Your task to perform on an android device: Go to privacy settings Image 0: 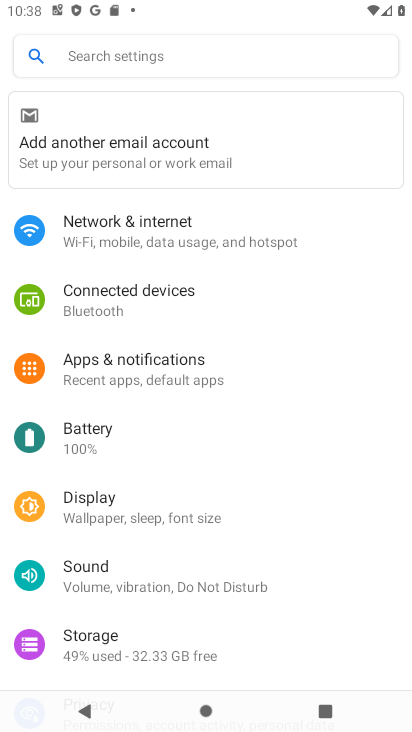
Step 0: press home button
Your task to perform on an android device: Go to privacy settings Image 1: 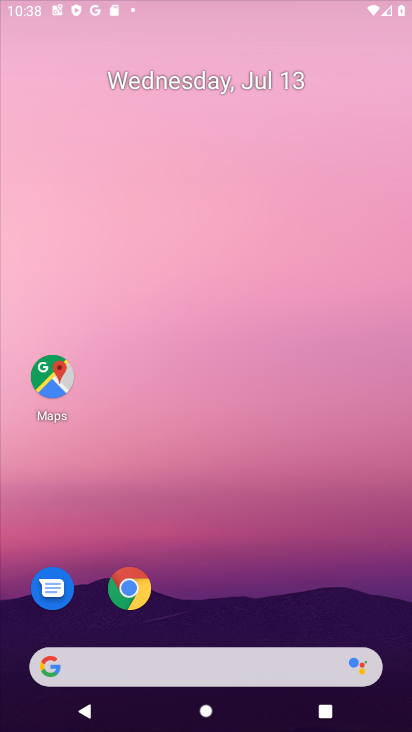
Step 1: drag from (241, 614) to (255, 108)
Your task to perform on an android device: Go to privacy settings Image 2: 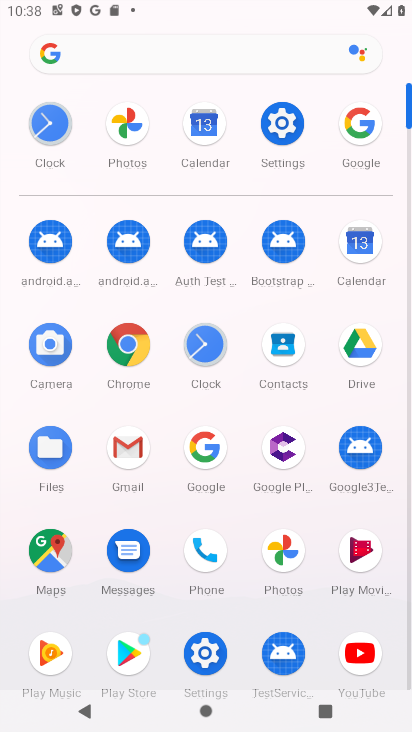
Step 2: click (126, 348)
Your task to perform on an android device: Go to privacy settings Image 3: 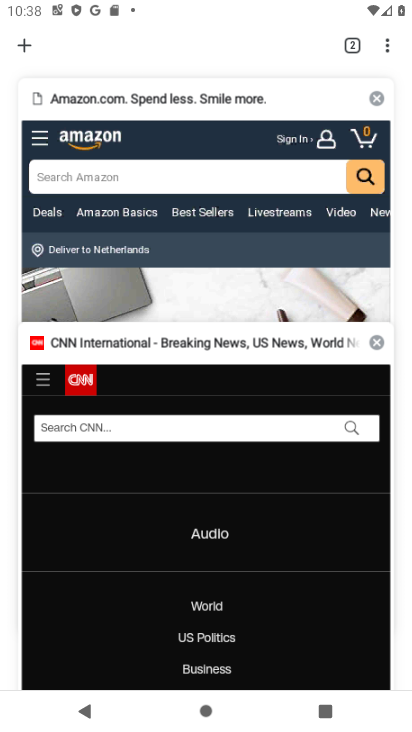
Step 3: press back button
Your task to perform on an android device: Go to privacy settings Image 4: 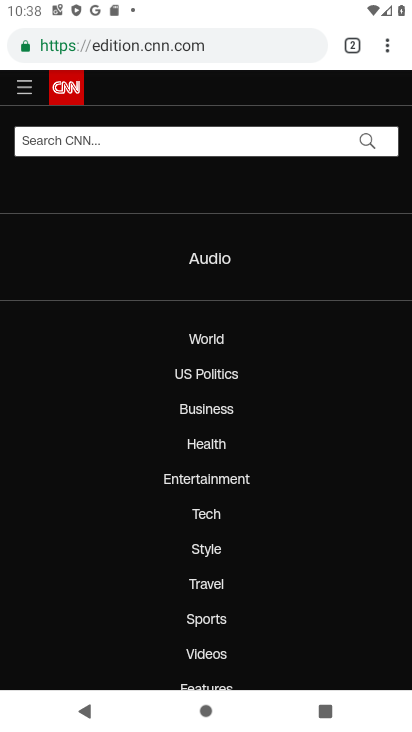
Step 4: click (381, 46)
Your task to perform on an android device: Go to privacy settings Image 5: 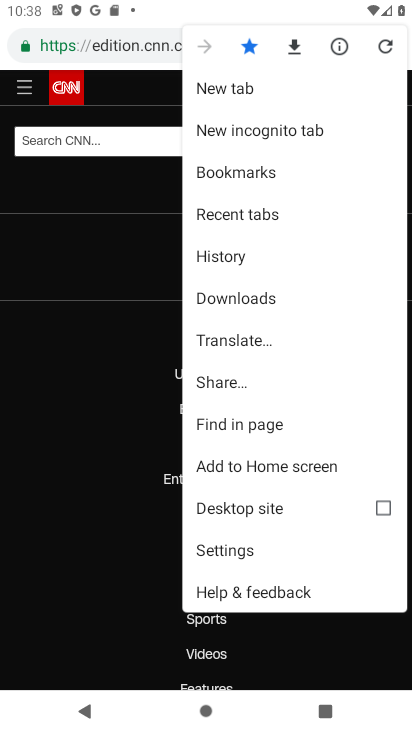
Step 5: click (250, 548)
Your task to perform on an android device: Go to privacy settings Image 6: 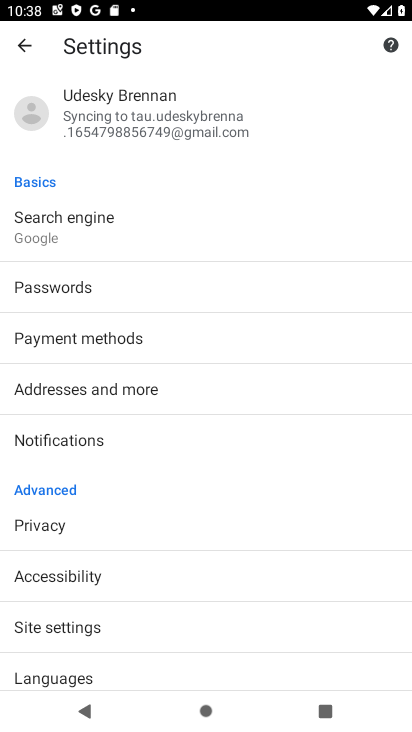
Step 6: click (150, 533)
Your task to perform on an android device: Go to privacy settings Image 7: 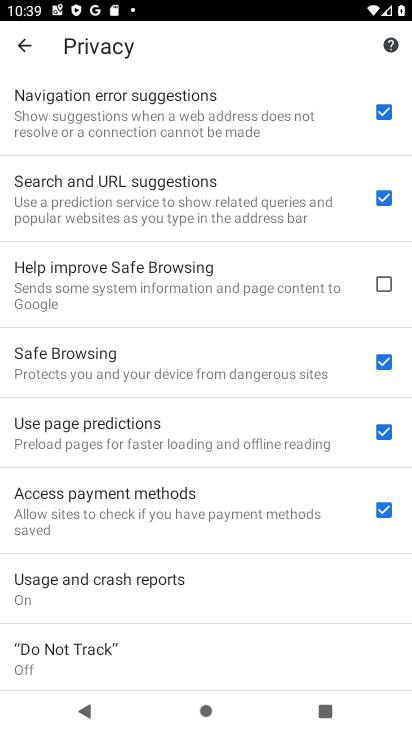
Step 7: task complete